Your task to perform on an android device: Search for hotels in New York Image 0: 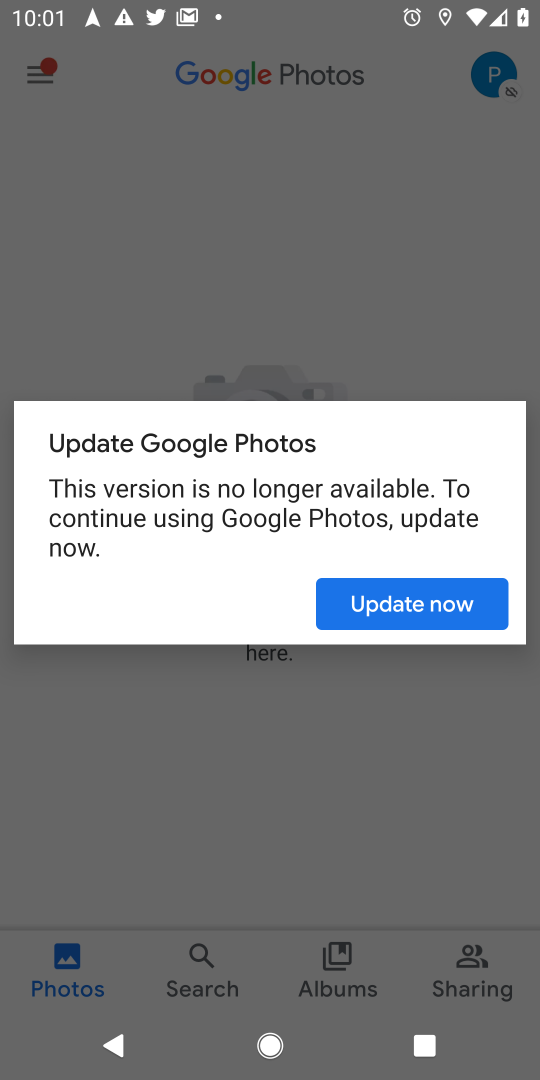
Step 0: click (317, 400)
Your task to perform on an android device: Search for hotels in New York Image 1: 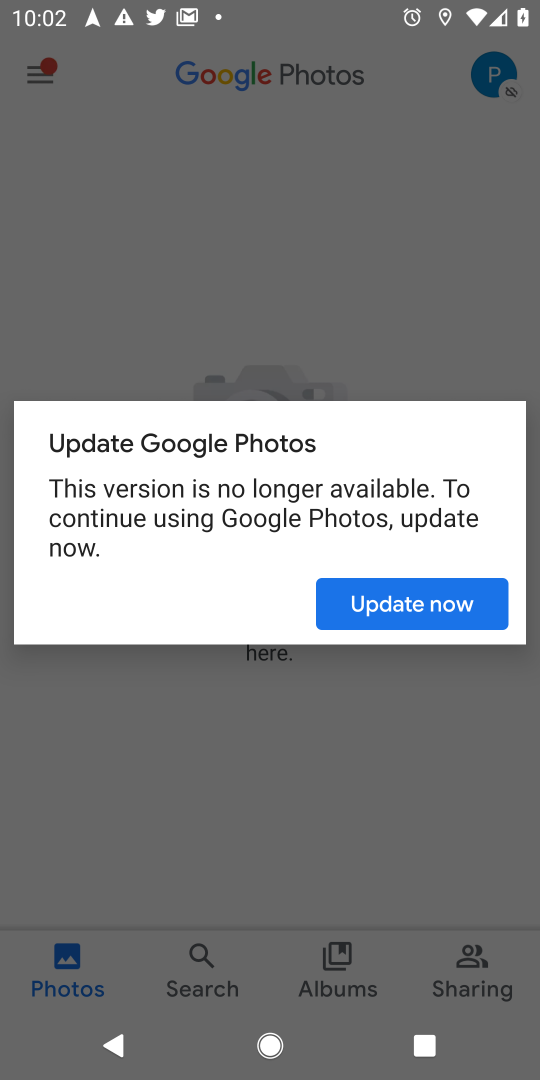
Step 1: press home button
Your task to perform on an android device: Search for hotels in New York Image 2: 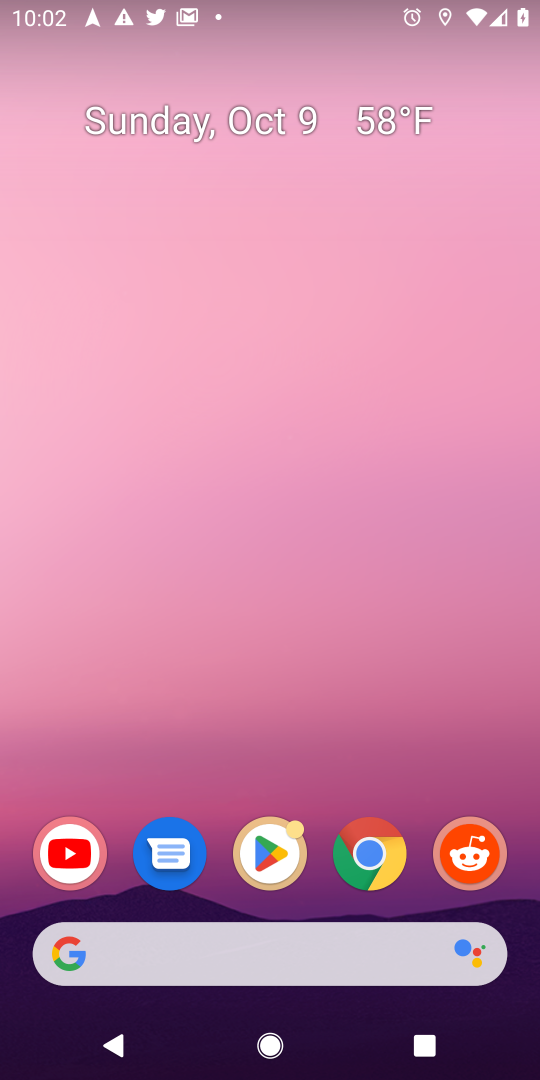
Step 2: click (363, 839)
Your task to perform on an android device: Search for hotels in New York Image 3: 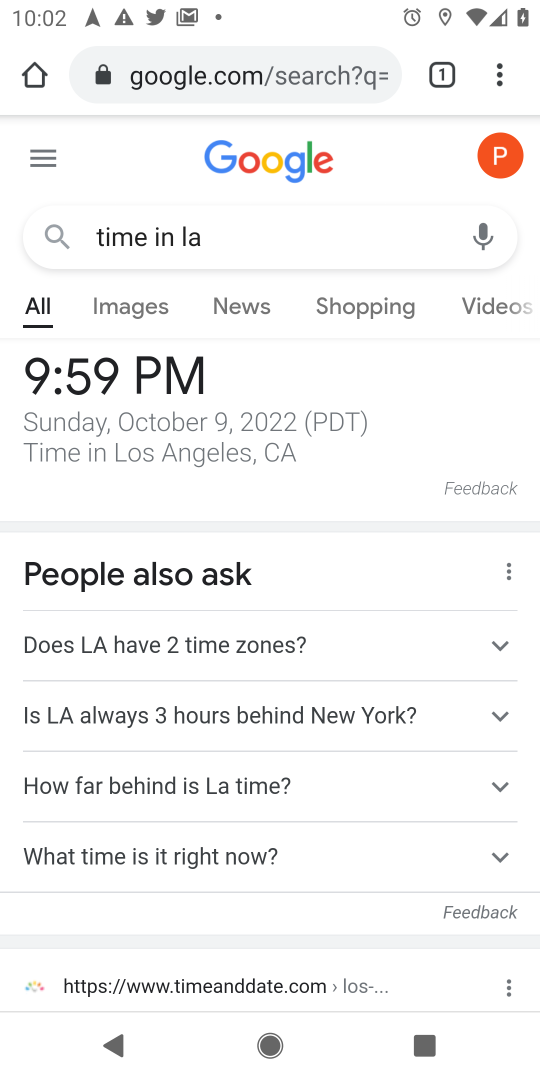
Step 3: click (250, 61)
Your task to perform on an android device: Search for hotels in New York Image 4: 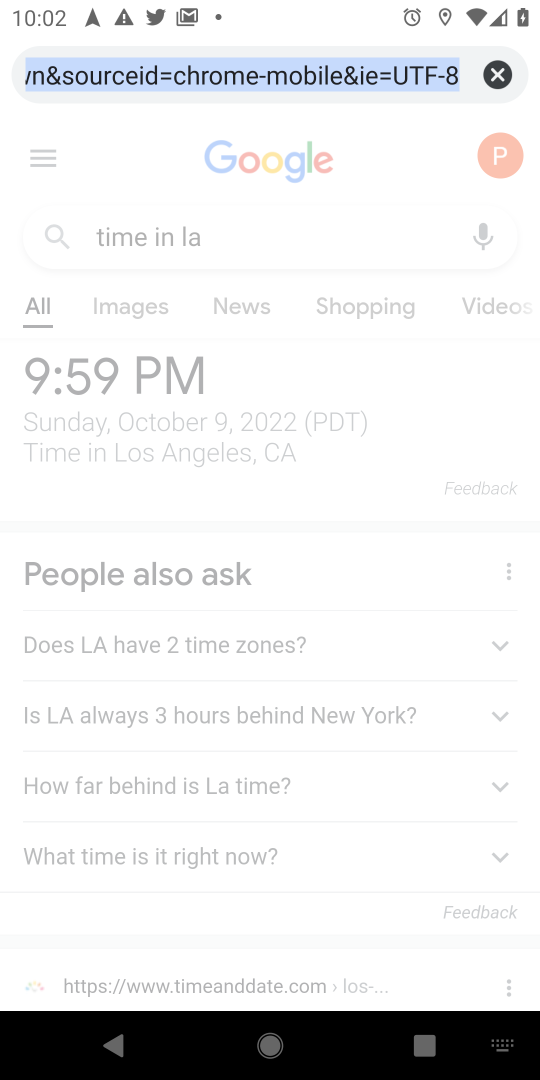
Step 4: type "hotels in  new york"
Your task to perform on an android device: Search for hotels in New York Image 5: 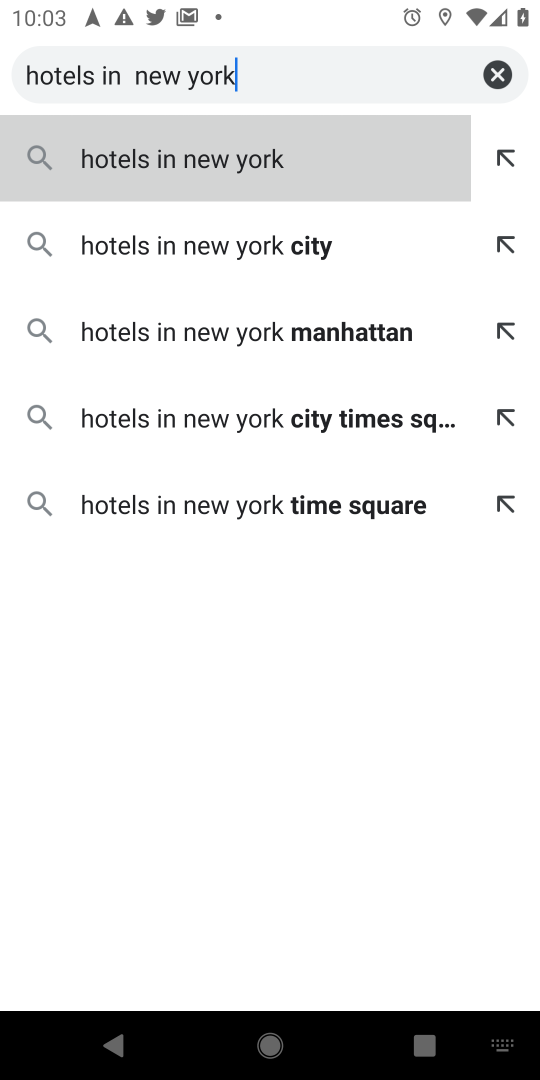
Step 5: click (289, 137)
Your task to perform on an android device: Search for hotels in New York Image 6: 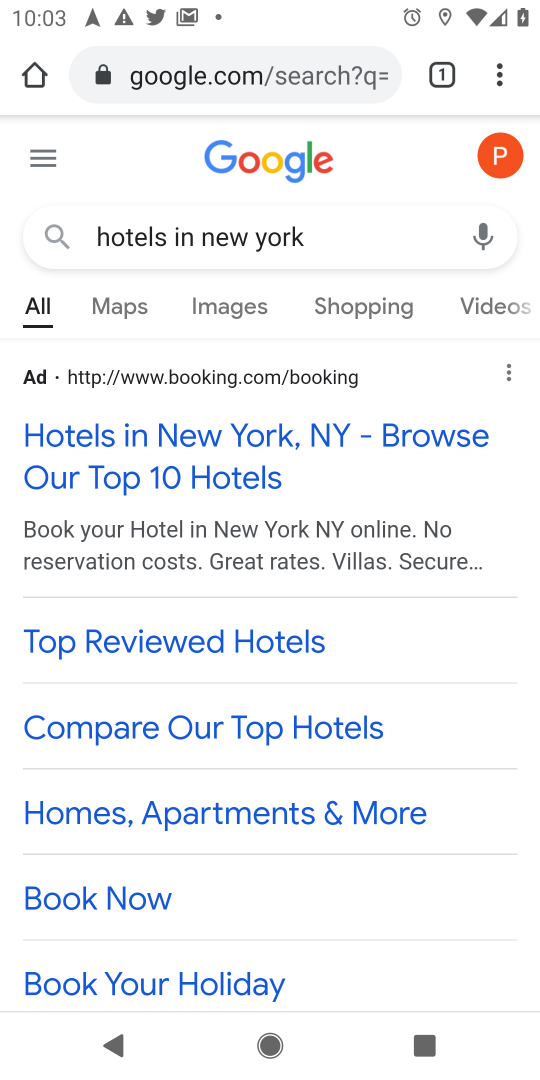
Step 6: drag from (459, 862) to (419, 415)
Your task to perform on an android device: Search for hotels in New York Image 7: 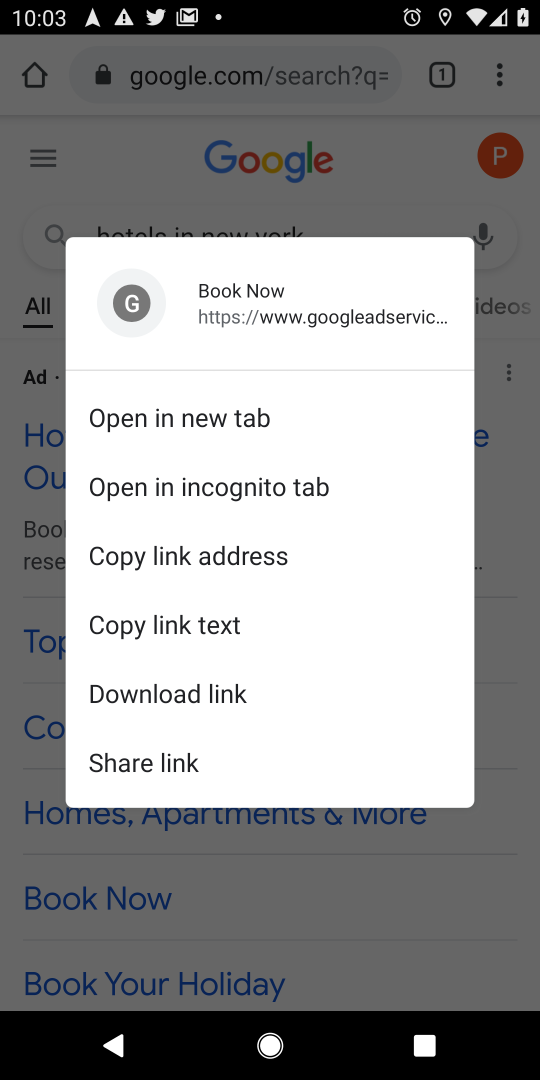
Step 7: click (404, 884)
Your task to perform on an android device: Search for hotels in New York Image 8: 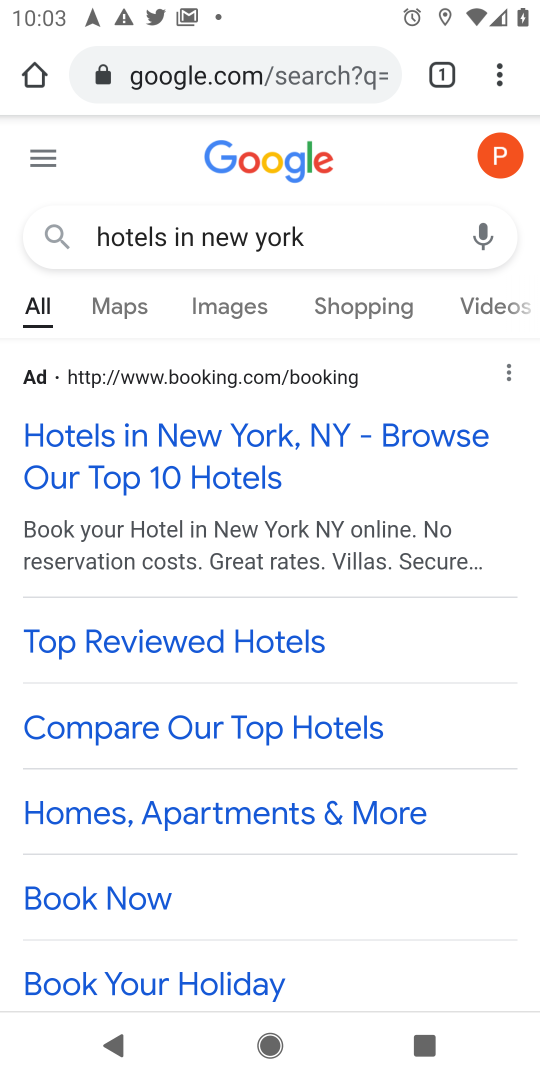
Step 8: task complete